Your task to perform on an android device: turn off javascript in the chrome app Image 0: 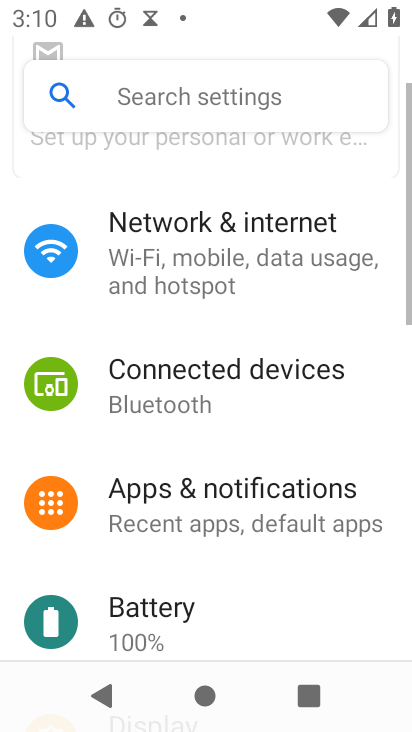
Step 0: press home button
Your task to perform on an android device: turn off javascript in the chrome app Image 1: 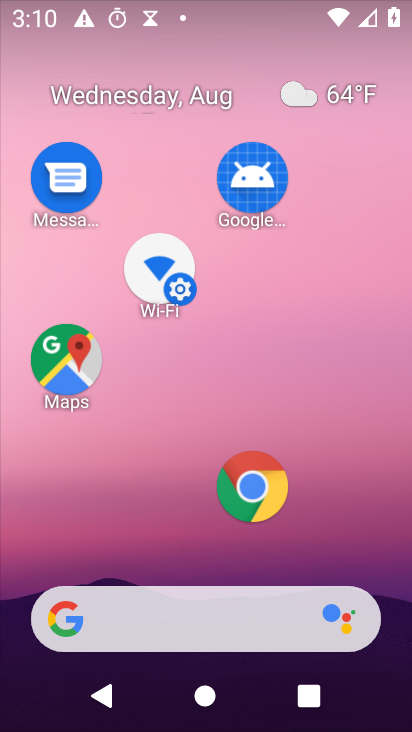
Step 1: click (266, 489)
Your task to perform on an android device: turn off javascript in the chrome app Image 2: 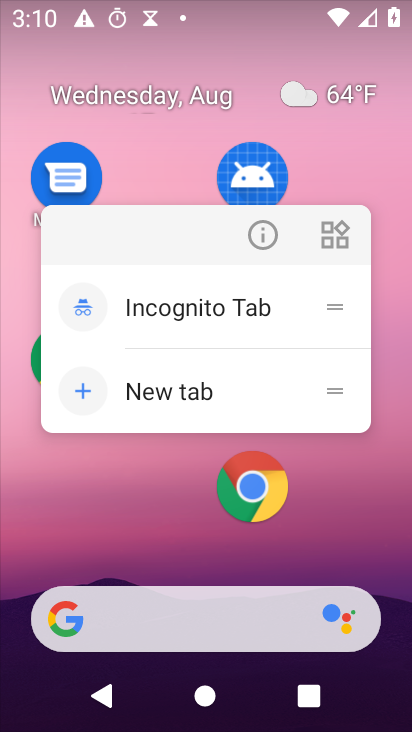
Step 2: click (266, 489)
Your task to perform on an android device: turn off javascript in the chrome app Image 3: 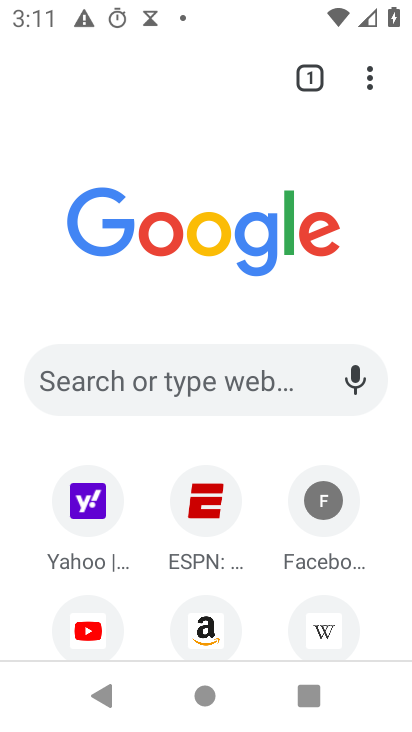
Step 3: drag from (373, 89) to (247, 580)
Your task to perform on an android device: turn off javascript in the chrome app Image 4: 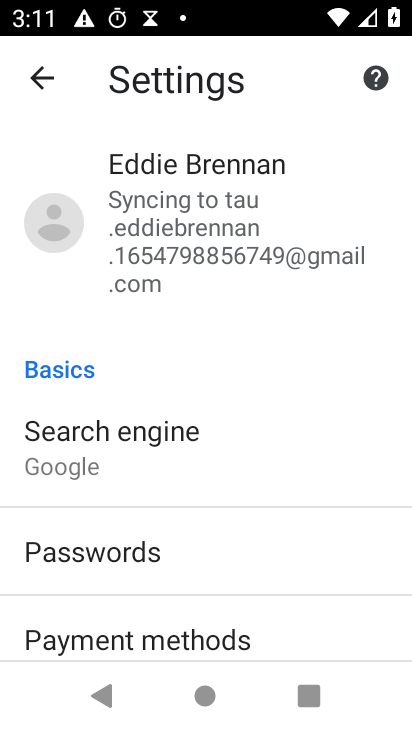
Step 4: drag from (346, 494) to (386, 80)
Your task to perform on an android device: turn off javascript in the chrome app Image 5: 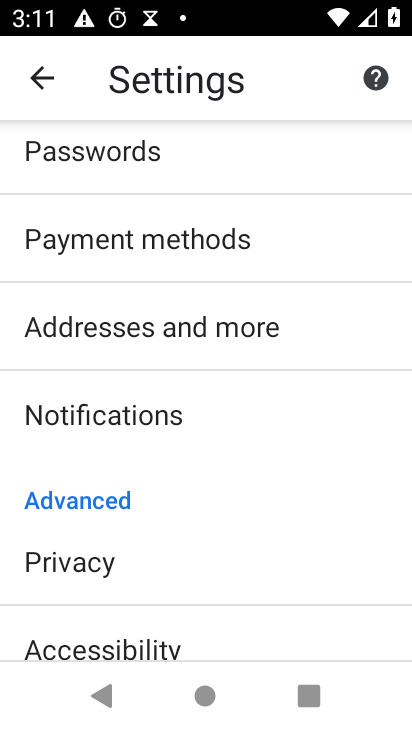
Step 5: drag from (354, 633) to (402, 333)
Your task to perform on an android device: turn off javascript in the chrome app Image 6: 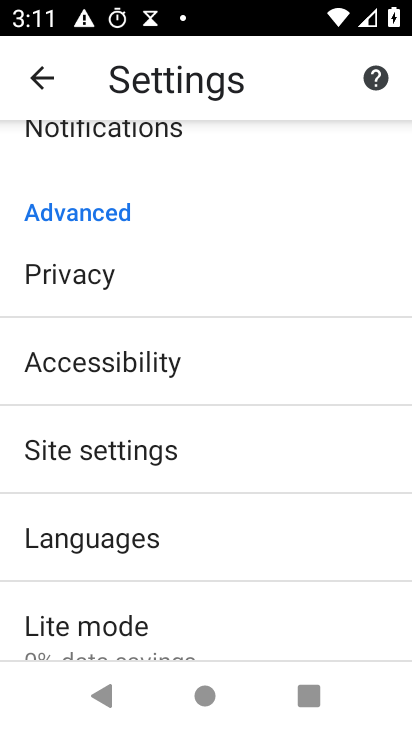
Step 6: click (89, 447)
Your task to perform on an android device: turn off javascript in the chrome app Image 7: 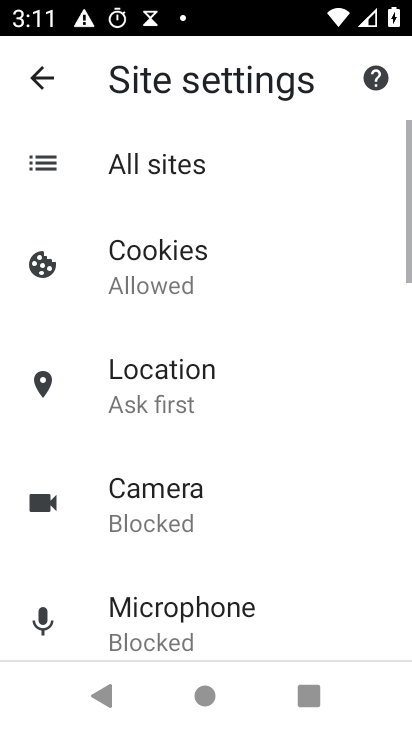
Step 7: drag from (379, 512) to (391, 146)
Your task to perform on an android device: turn off javascript in the chrome app Image 8: 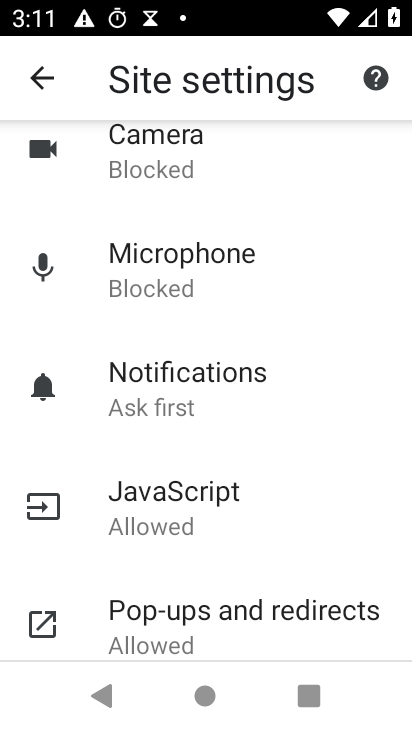
Step 8: click (148, 504)
Your task to perform on an android device: turn off javascript in the chrome app Image 9: 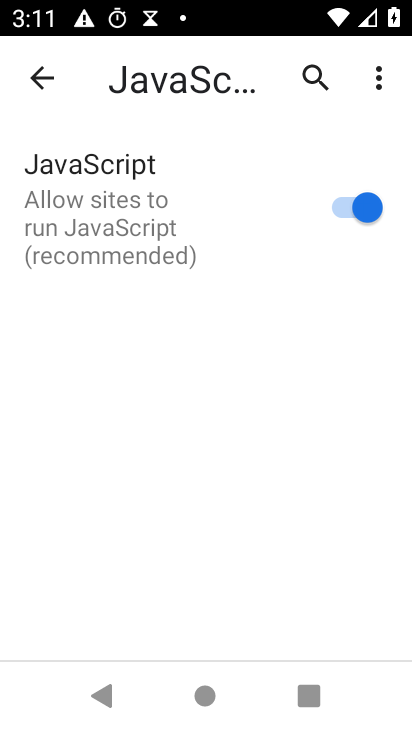
Step 9: click (371, 204)
Your task to perform on an android device: turn off javascript in the chrome app Image 10: 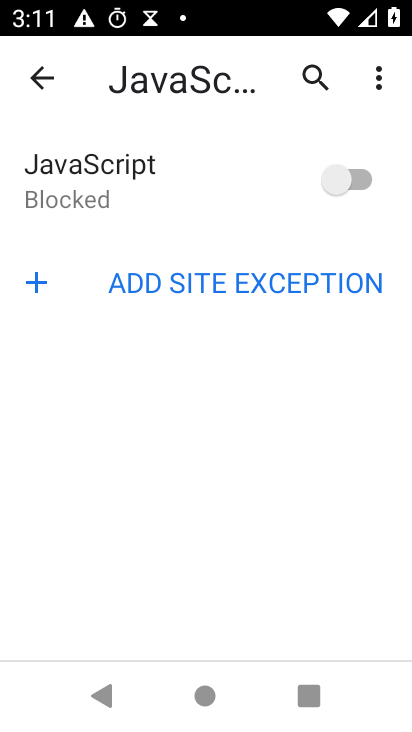
Step 10: task complete